Your task to perform on an android device: change keyboard looks Image 0: 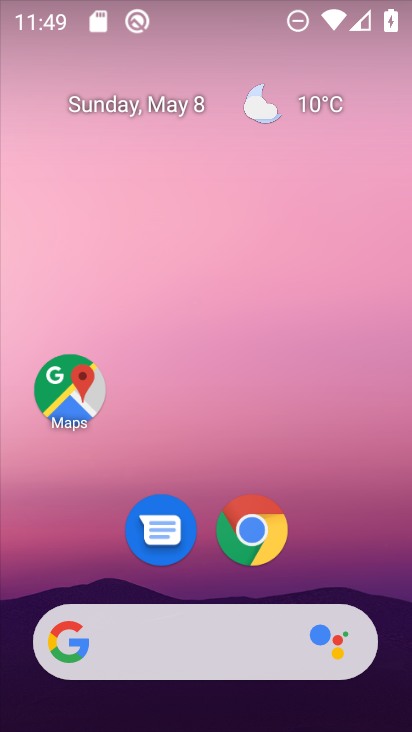
Step 0: drag from (210, 573) to (195, 284)
Your task to perform on an android device: change keyboard looks Image 1: 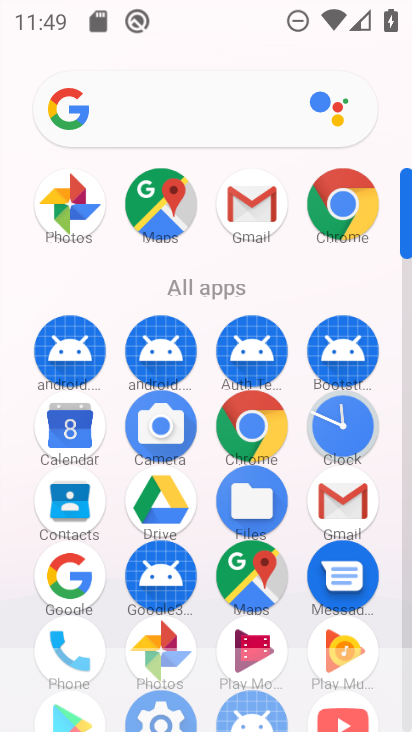
Step 1: drag from (206, 528) to (235, 147)
Your task to perform on an android device: change keyboard looks Image 2: 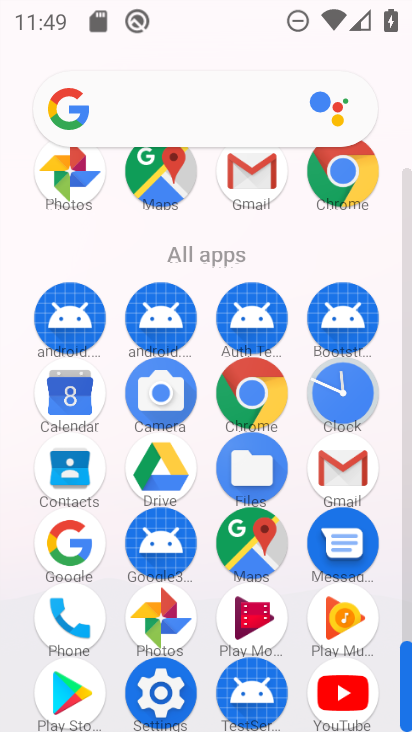
Step 2: click (149, 681)
Your task to perform on an android device: change keyboard looks Image 3: 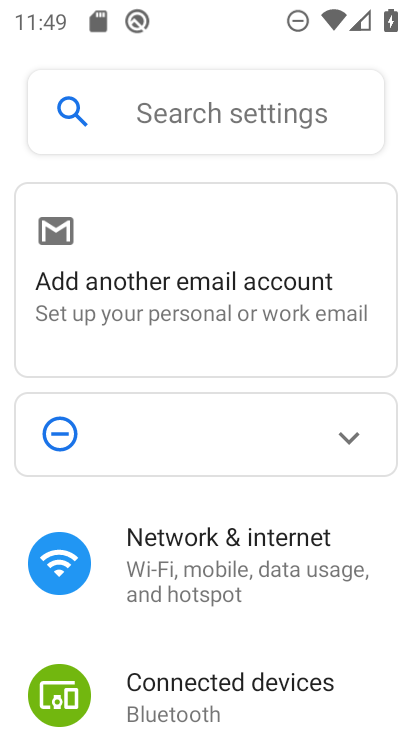
Step 3: drag from (116, 627) to (124, 64)
Your task to perform on an android device: change keyboard looks Image 4: 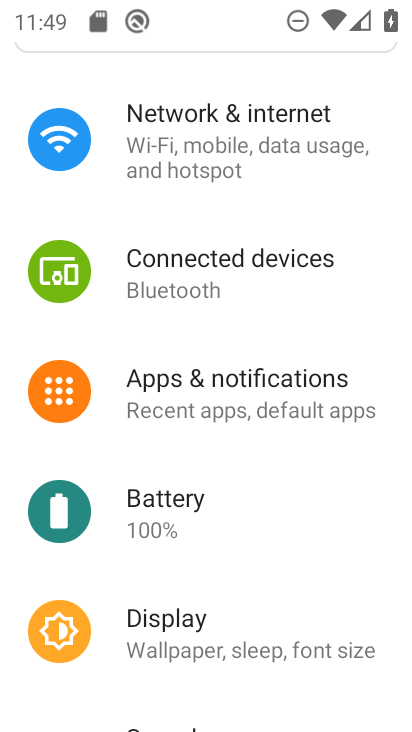
Step 4: drag from (177, 522) to (186, 200)
Your task to perform on an android device: change keyboard looks Image 5: 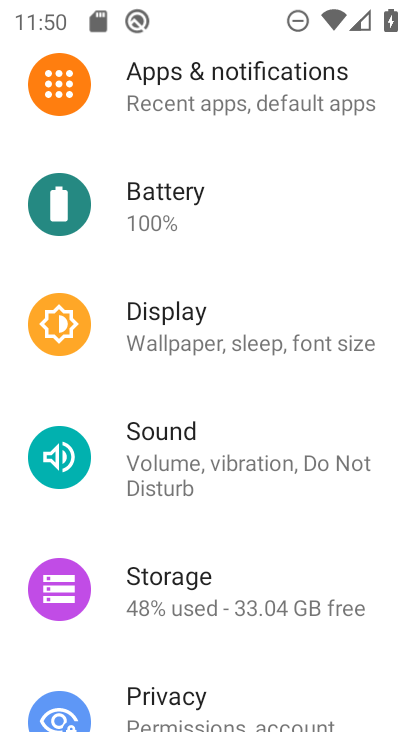
Step 5: drag from (138, 647) to (184, 235)
Your task to perform on an android device: change keyboard looks Image 6: 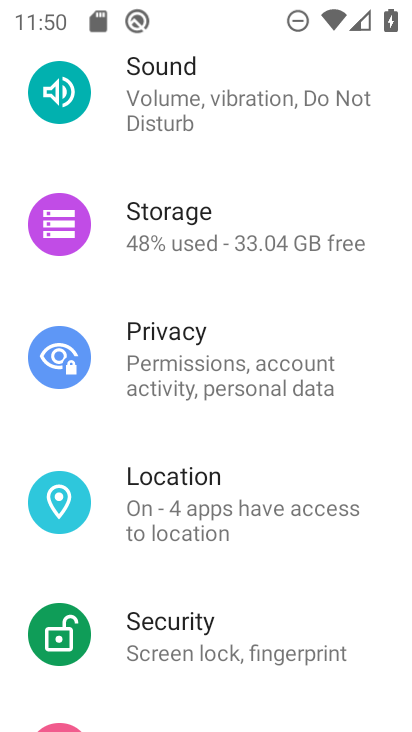
Step 6: drag from (216, 656) to (224, 200)
Your task to perform on an android device: change keyboard looks Image 7: 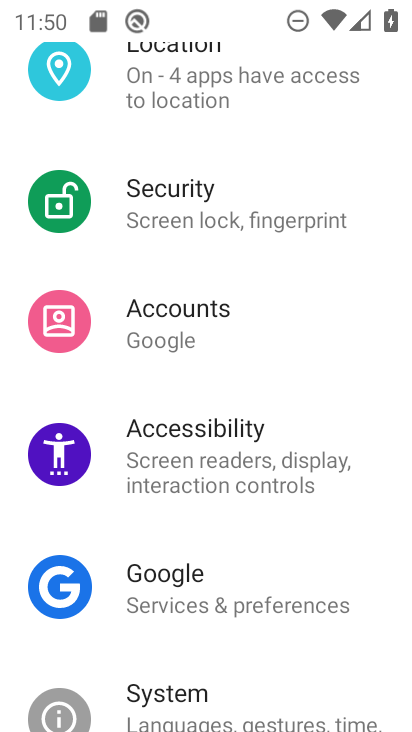
Step 7: drag from (236, 664) to (251, 299)
Your task to perform on an android device: change keyboard looks Image 8: 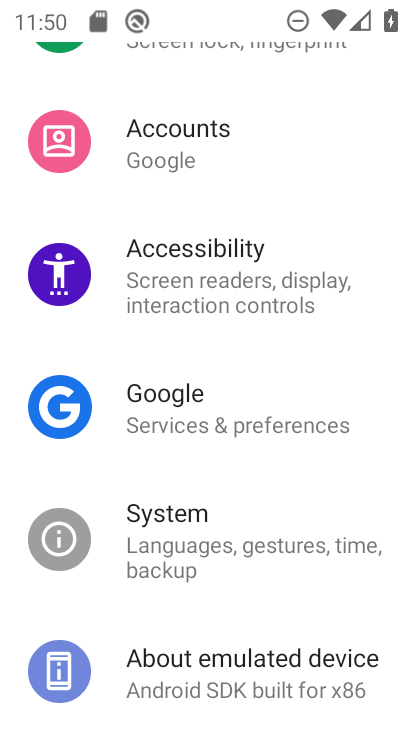
Step 8: drag from (157, 622) to (201, 200)
Your task to perform on an android device: change keyboard looks Image 9: 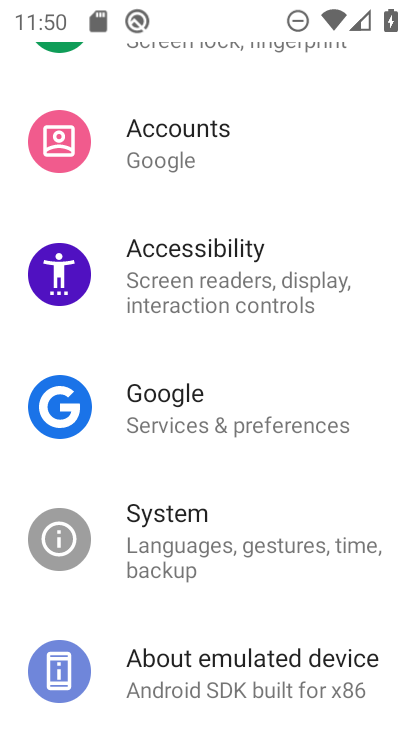
Step 9: click (225, 526)
Your task to perform on an android device: change keyboard looks Image 10: 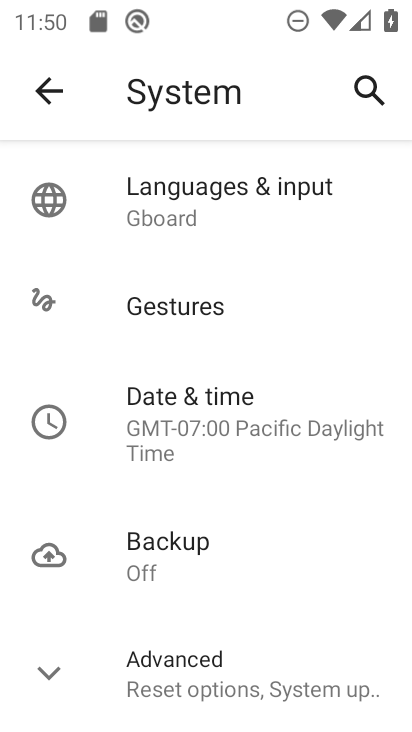
Step 10: click (208, 241)
Your task to perform on an android device: change keyboard looks Image 11: 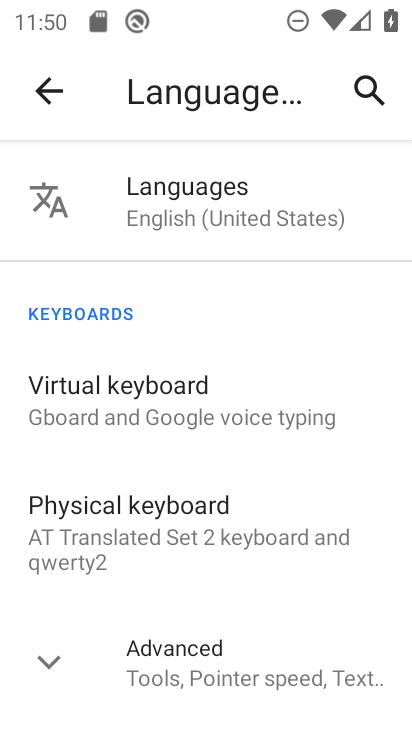
Step 11: click (233, 413)
Your task to perform on an android device: change keyboard looks Image 12: 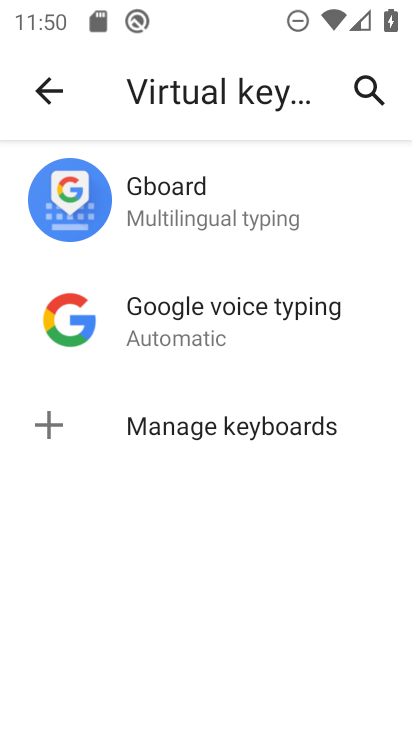
Step 12: click (174, 195)
Your task to perform on an android device: change keyboard looks Image 13: 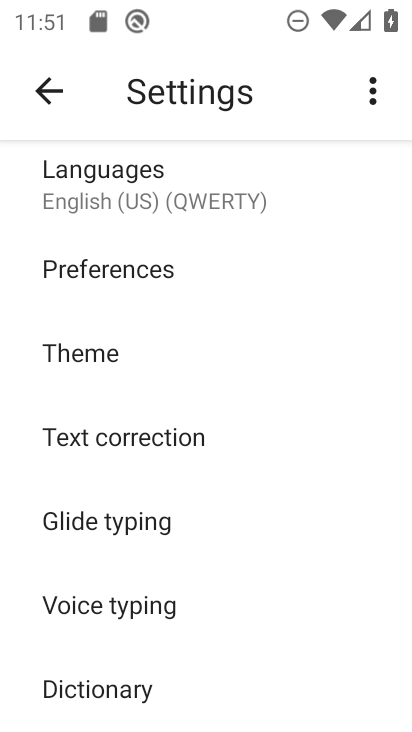
Step 13: click (155, 384)
Your task to perform on an android device: change keyboard looks Image 14: 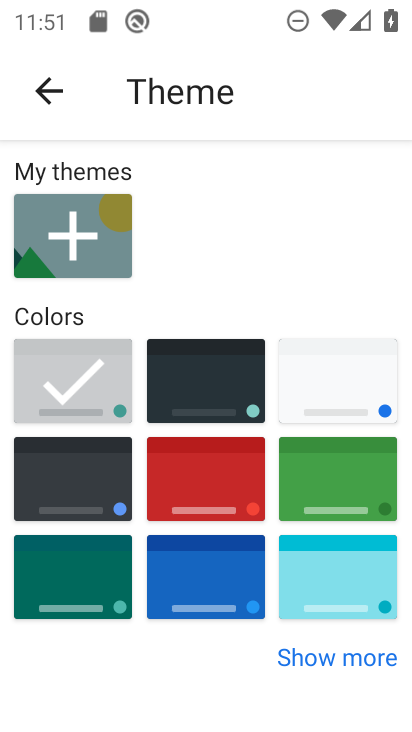
Step 14: click (368, 589)
Your task to perform on an android device: change keyboard looks Image 15: 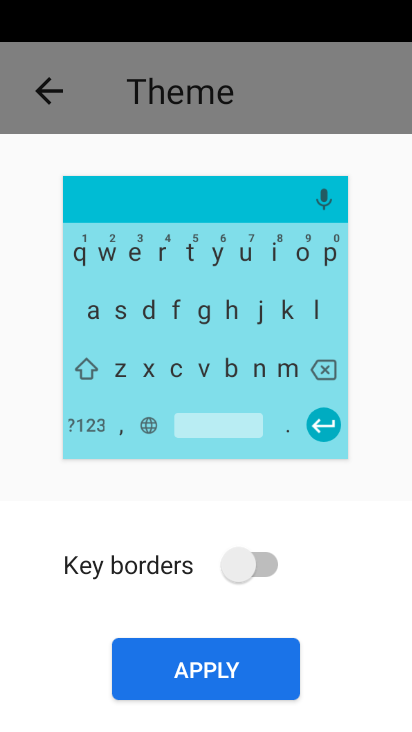
Step 15: click (222, 657)
Your task to perform on an android device: change keyboard looks Image 16: 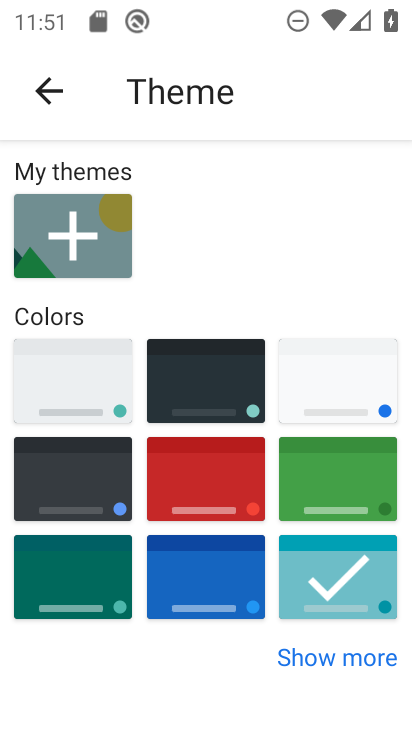
Step 16: task complete